Your task to perform on an android device: toggle sleep mode Image 0: 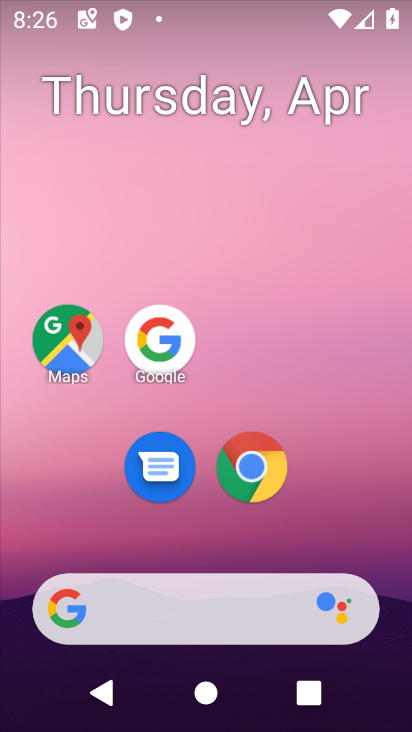
Step 0: drag from (218, 588) to (191, 21)
Your task to perform on an android device: toggle sleep mode Image 1: 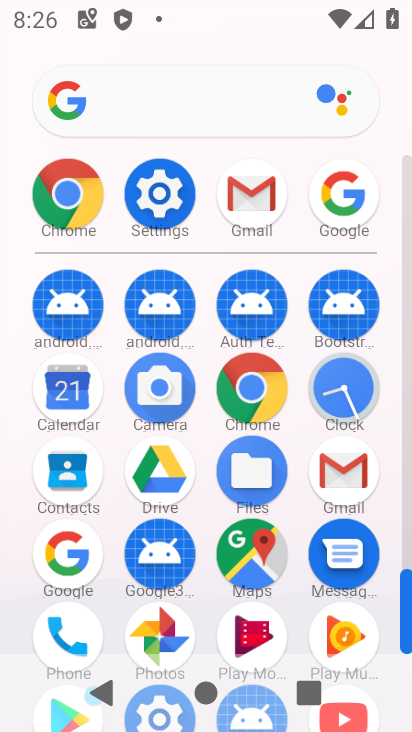
Step 1: click (172, 201)
Your task to perform on an android device: toggle sleep mode Image 2: 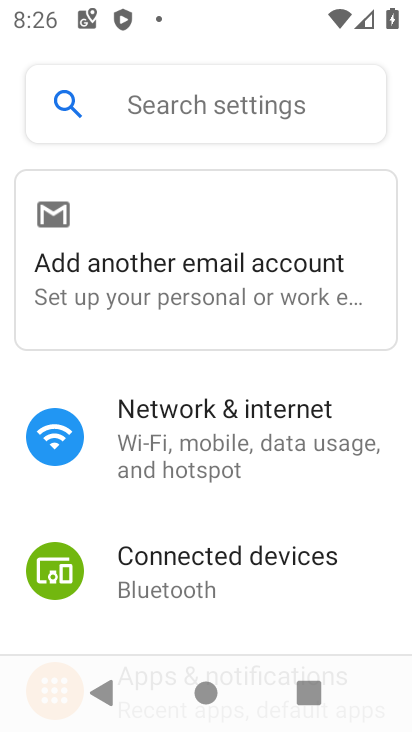
Step 2: drag from (176, 544) to (194, 145)
Your task to perform on an android device: toggle sleep mode Image 3: 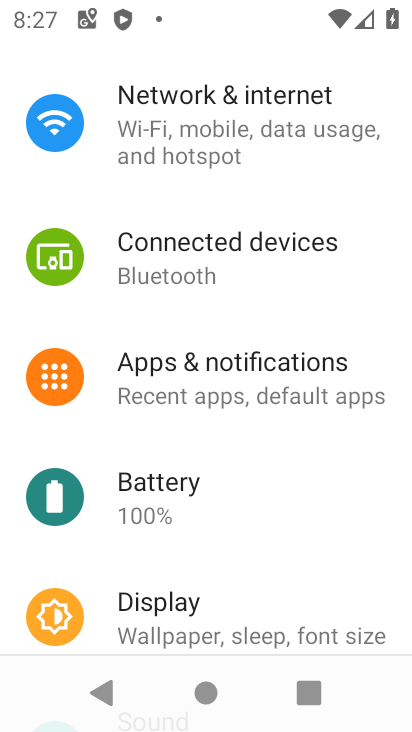
Step 3: click (171, 612)
Your task to perform on an android device: toggle sleep mode Image 4: 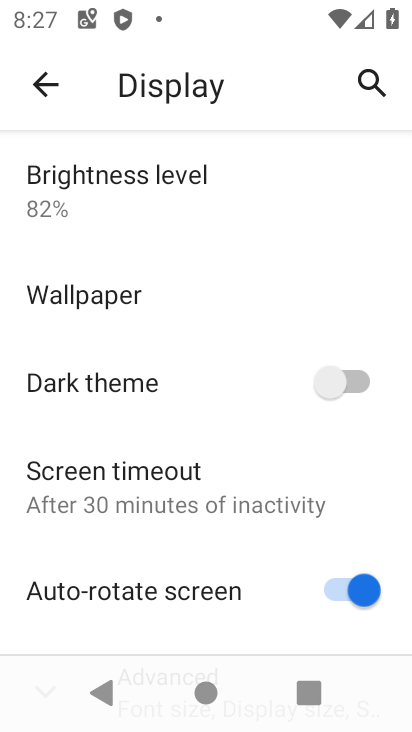
Step 4: drag from (268, 532) to (266, 2)
Your task to perform on an android device: toggle sleep mode Image 5: 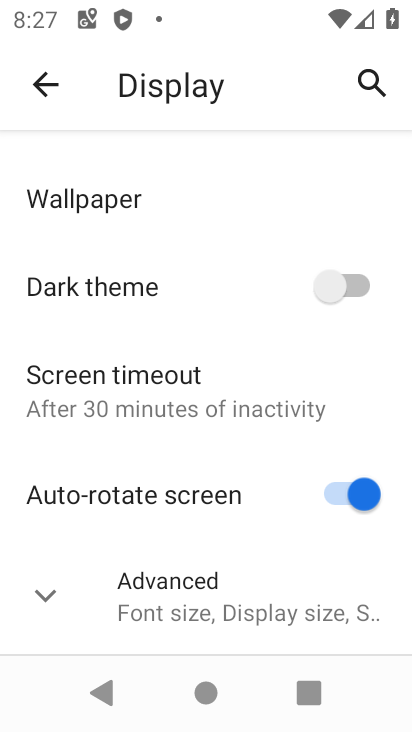
Step 5: click (184, 599)
Your task to perform on an android device: toggle sleep mode Image 6: 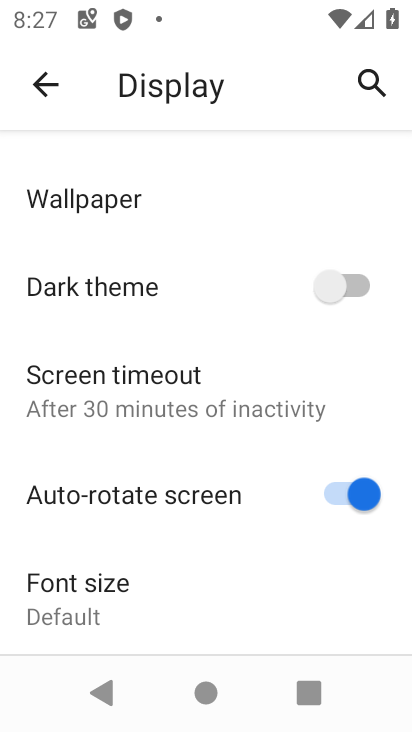
Step 6: task complete